Your task to perform on an android device: change timer sound Image 0: 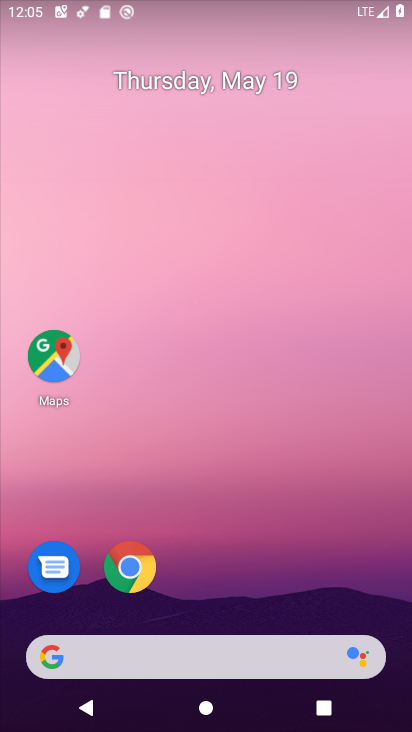
Step 0: drag from (300, 582) to (348, 109)
Your task to perform on an android device: change timer sound Image 1: 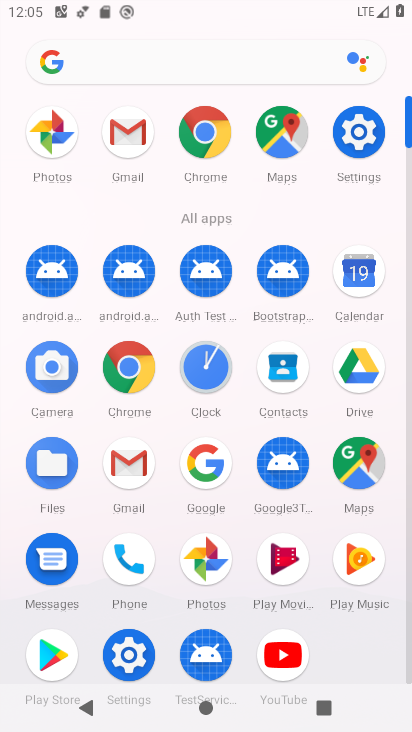
Step 1: click (187, 379)
Your task to perform on an android device: change timer sound Image 2: 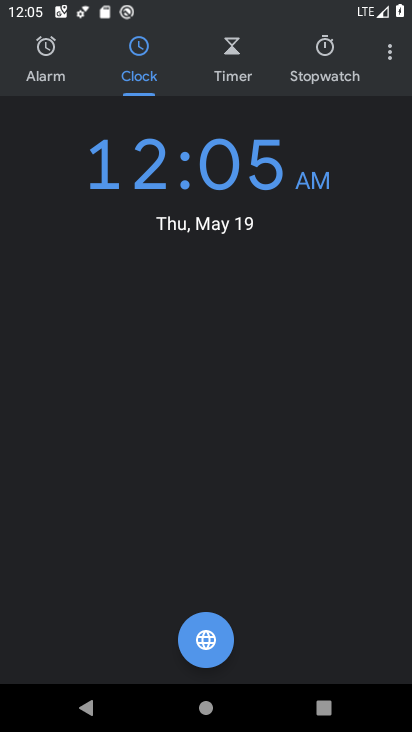
Step 2: click (388, 46)
Your task to perform on an android device: change timer sound Image 3: 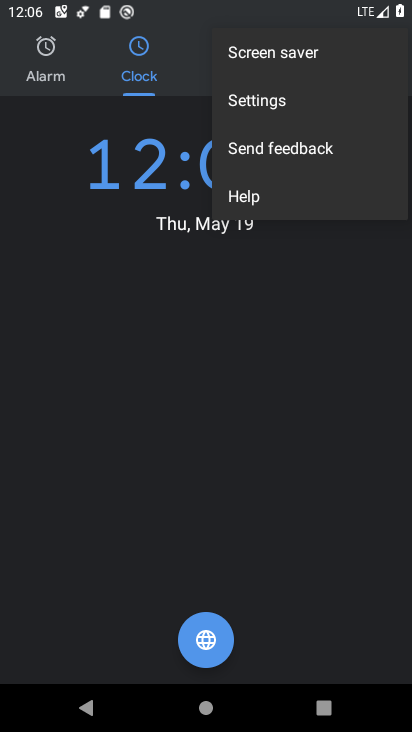
Step 3: click (235, 108)
Your task to perform on an android device: change timer sound Image 4: 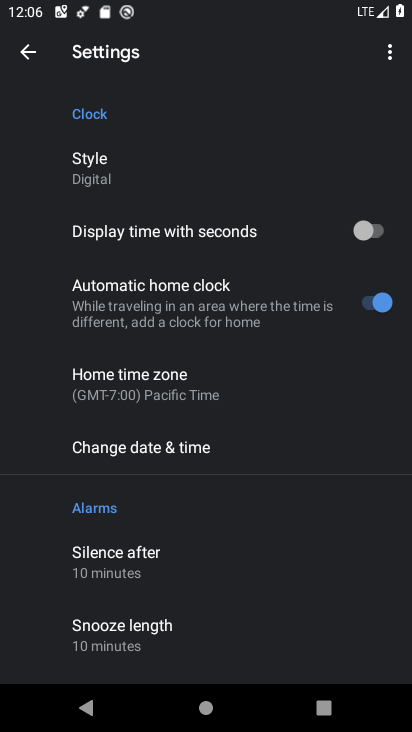
Step 4: drag from (193, 553) to (240, 143)
Your task to perform on an android device: change timer sound Image 5: 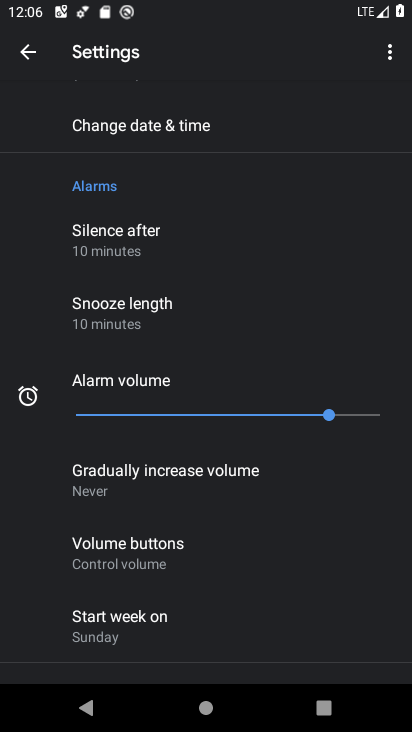
Step 5: drag from (261, 173) to (310, 561)
Your task to perform on an android device: change timer sound Image 6: 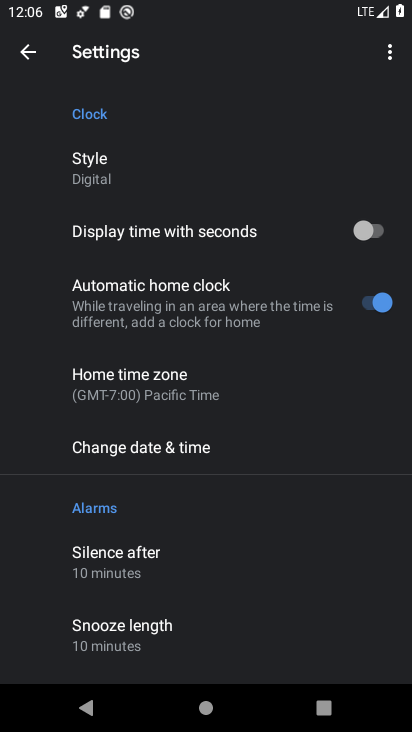
Step 6: drag from (196, 213) to (215, 659)
Your task to perform on an android device: change timer sound Image 7: 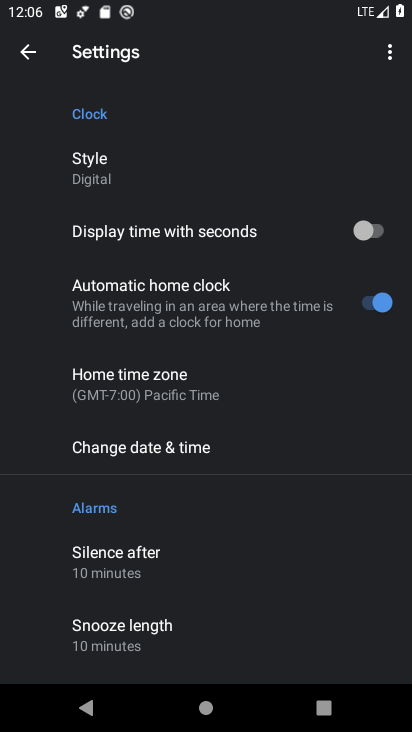
Step 7: drag from (226, 595) to (231, 187)
Your task to perform on an android device: change timer sound Image 8: 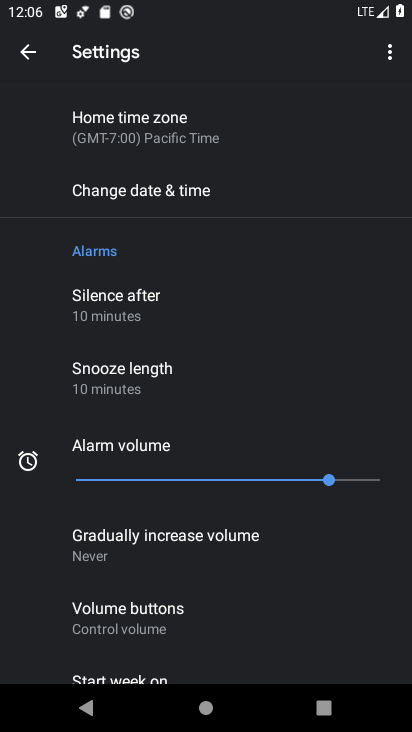
Step 8: drag from (162, 600) to (174, 251)
Your task to perform on an android device: change timer sound Image 9: 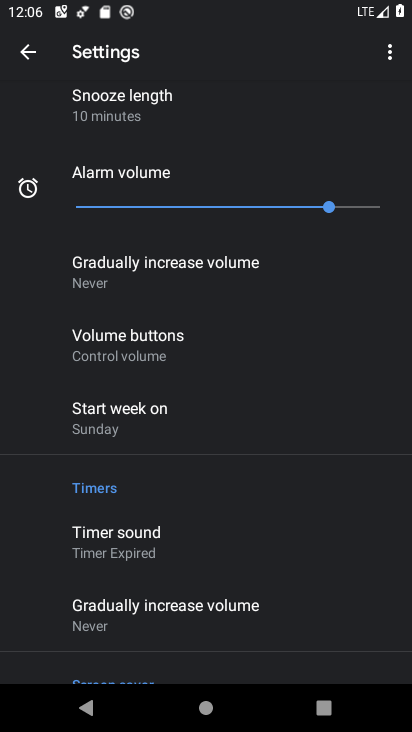
Step 9: click (123, 532)
Your task to perform on an android device: change timer sound Image 10: 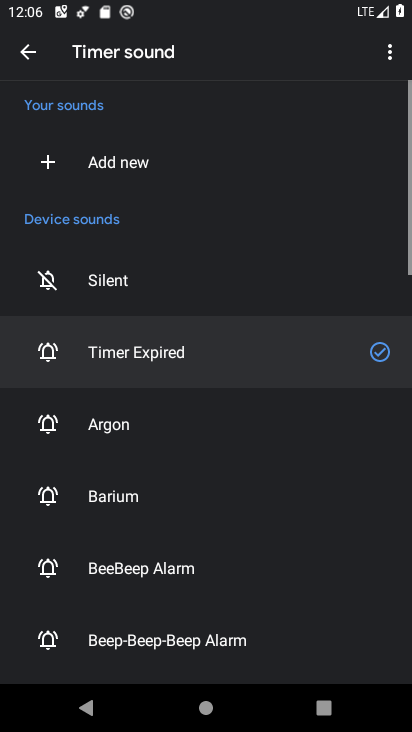
Step 10: click (131, 413)
Your task to perform on an android device: change timer sound Image 11: 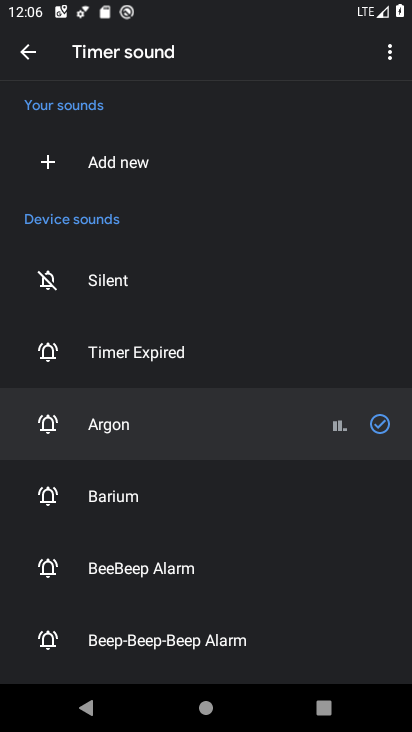
Step 11: task complete